Your task to perform on an android device: Go to accessibility settings Image 0: 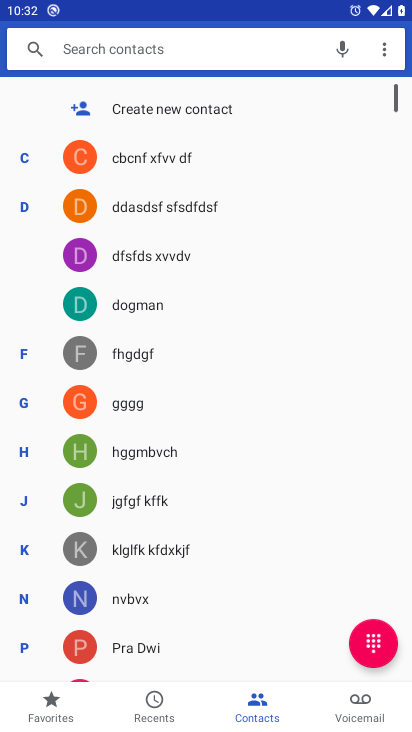
Step 0: press home button
Your task to perform on an android device: Go to accessibility settings Image 1: 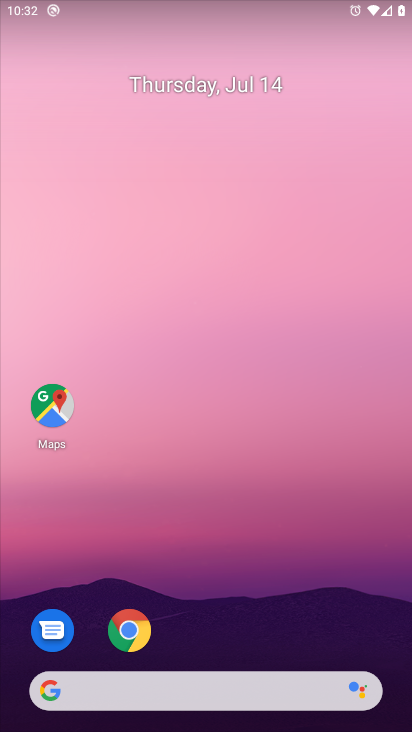
Step 1: drag from (45, 685) to (206, 8)
Your task to perform on an android device: Go to accessibility settings Image 2: 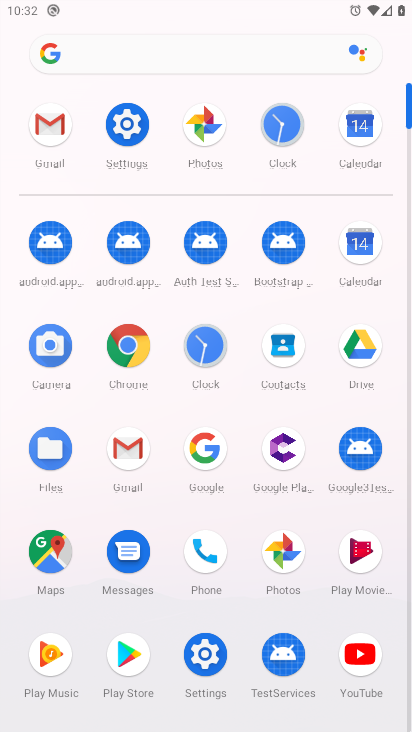
Step 2: click (207, 668)
Your task to perform on an android device: Go to accessibility settings Image 3: 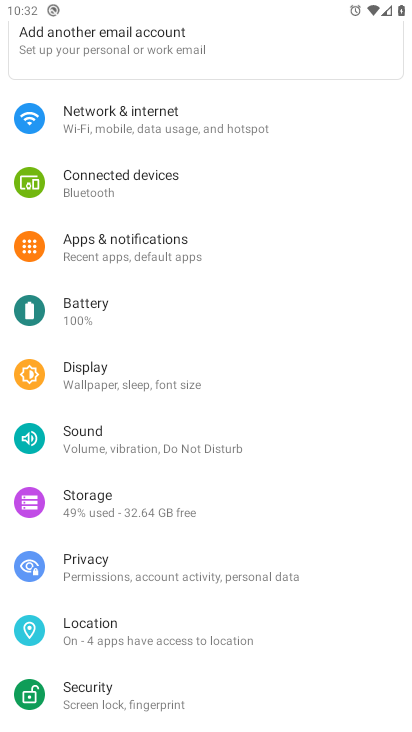
Step 3: drag from (245, 637) to (240, 8)
Your task to perform on an android device: Go to accessibility settings Image 4: 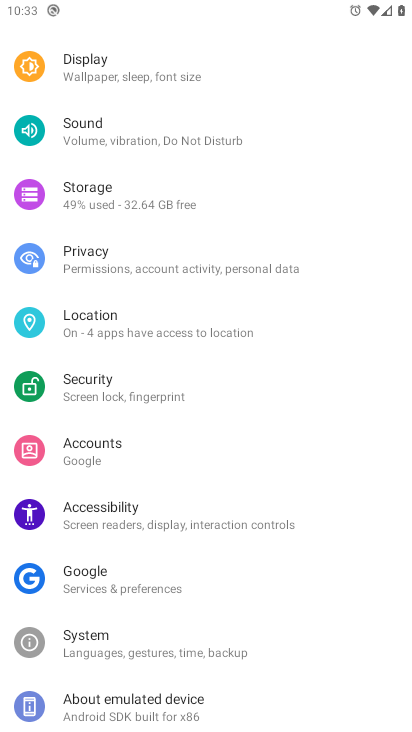
Step 4: drag from (359, 695) to (337, 488)
Your task to perform on an android device: Go to accessibility settings Image 5: 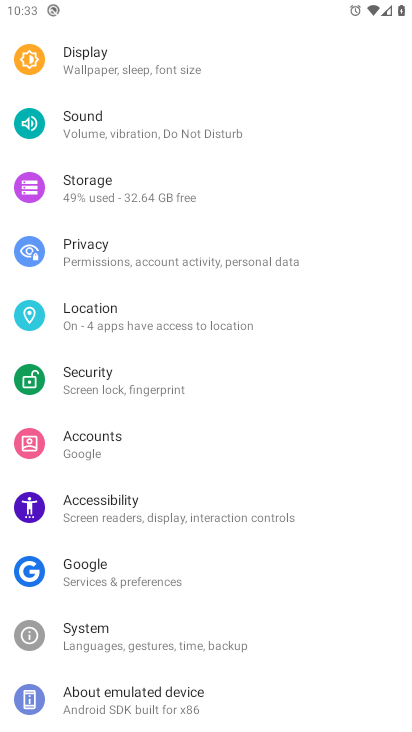
Step 5: drag from (363, 74) to (365, 513)
Your task to perform on an android device: Go to accessibility settings Image 6: 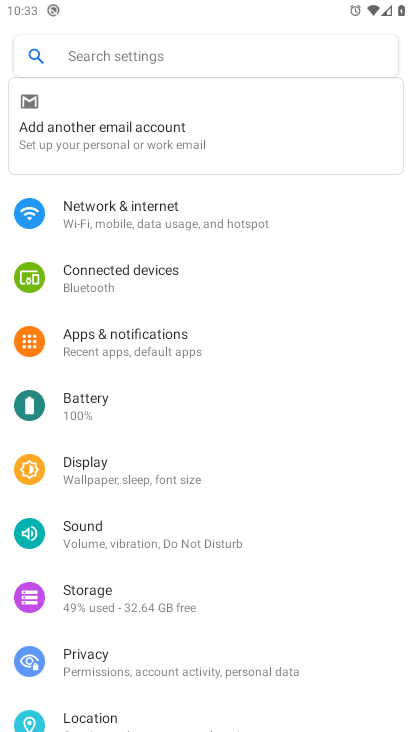
Step 6: drag from (352, 611) to (370, 357)
Your task to perform on an android device: Go to accessibility settings Image 7: 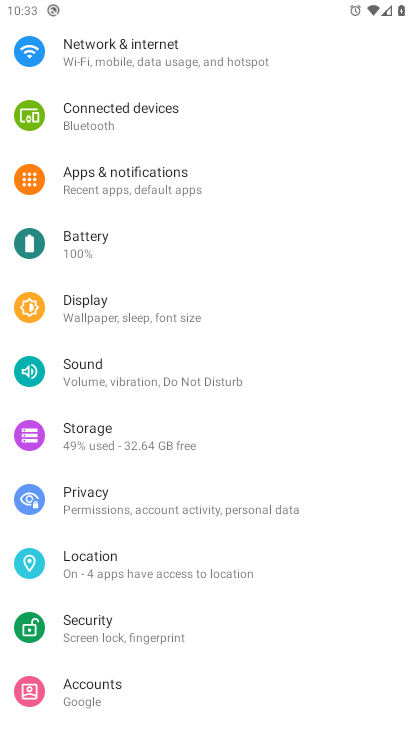
Step 7: drag from (329, 618) to (340, 432)
Your task to perform on an android device: Go to accessibility settings Image 8: 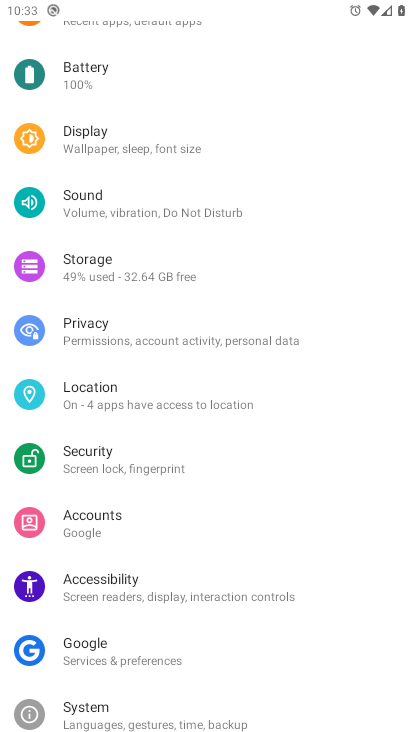
Step 8: click (87, 584)
Your task to perform on an android device: Go to accessibility settings Image 9: 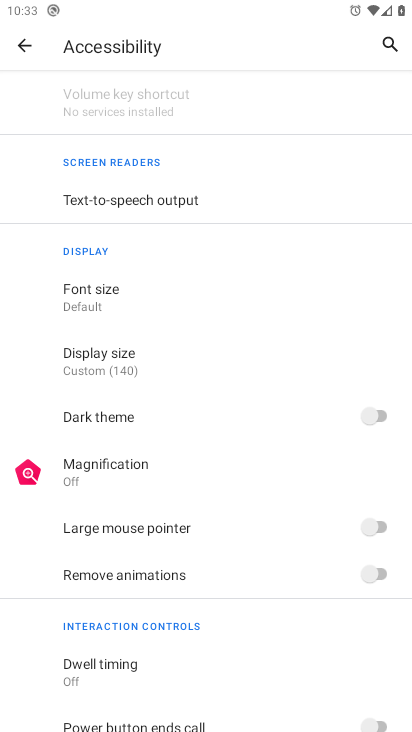
Step 9: task complete